Your task to perform on an android device: change text size in settings app Image 0: 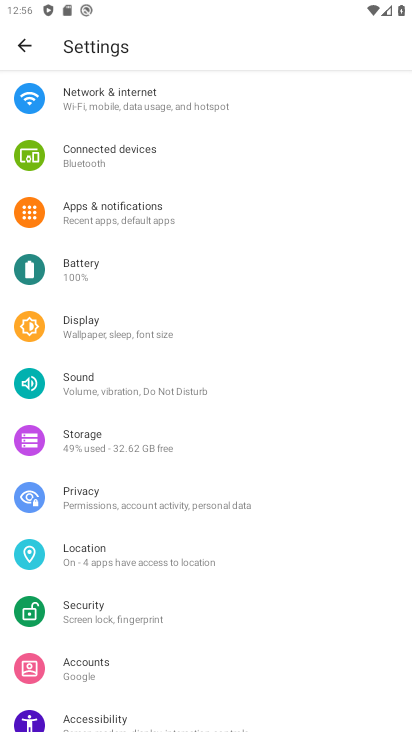
Step 0: click (79, 326)
Your task to perform on an android device: change text size in settings app Image 1: 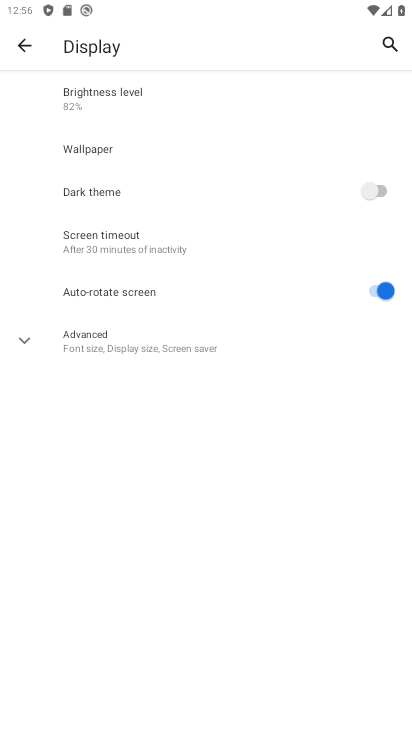
Step 1: click (114, 346)
Your task to perform on an android device: change text size in settings app Image 2: 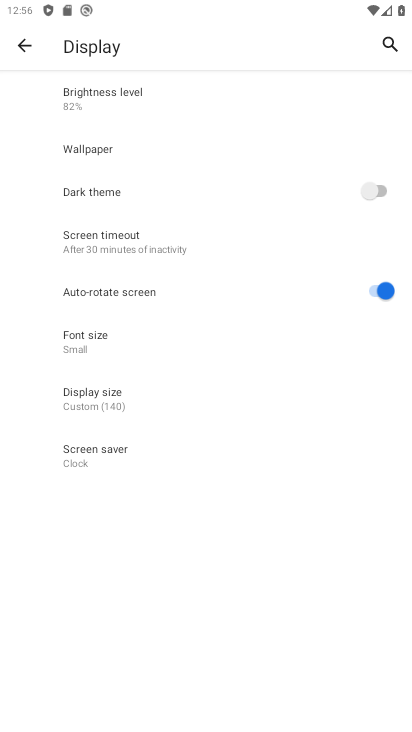
Step 2: click (110, 344)
Your task to perform on an android device: change text size in settings app Image 3: 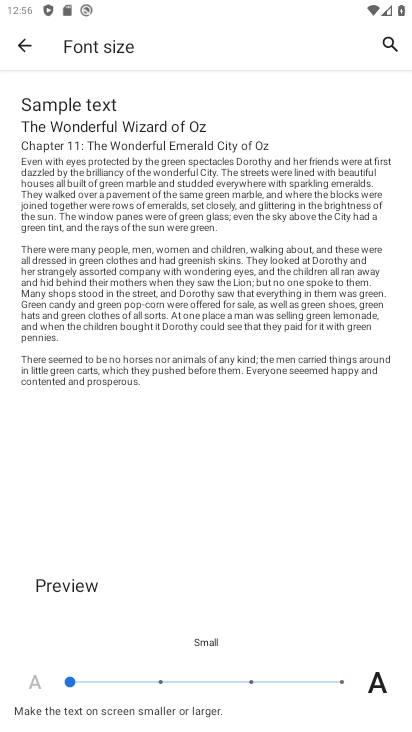
Step 3: click (154, 681)
Your task to perform on an android device: change text size in settings app Image 4: 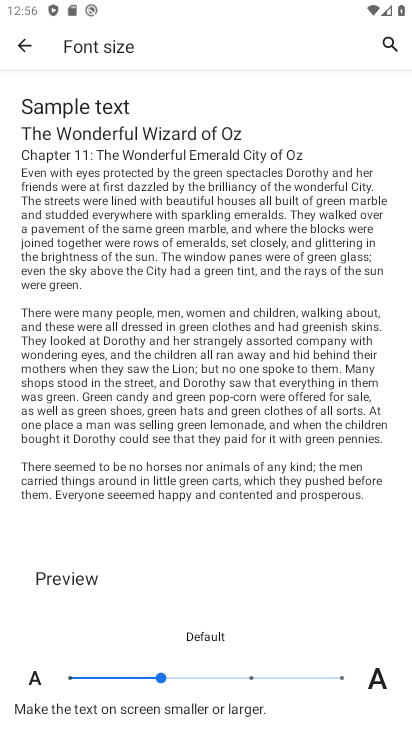
Step 4: task complete